Your task to perform on an android device: Open Youtube and go to the subscriptions tab Image 0: 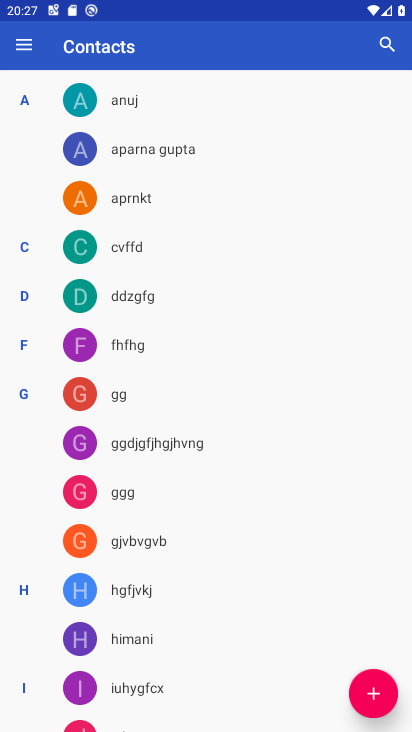
Step 0: press home button
Your task to perform on an android device: Open Youtube and go to the subscriptions tab Image 1: 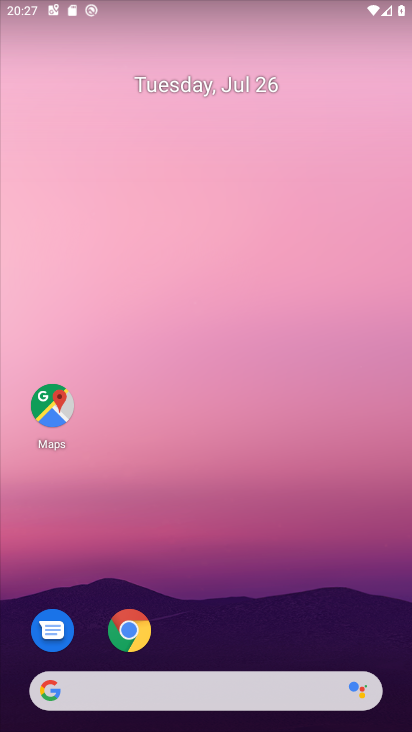
Step 1: drag from (390, 691) to (340, 69)
Your task to perform on an android device: Open Youtube and go to the subscriptions tab Image 2: 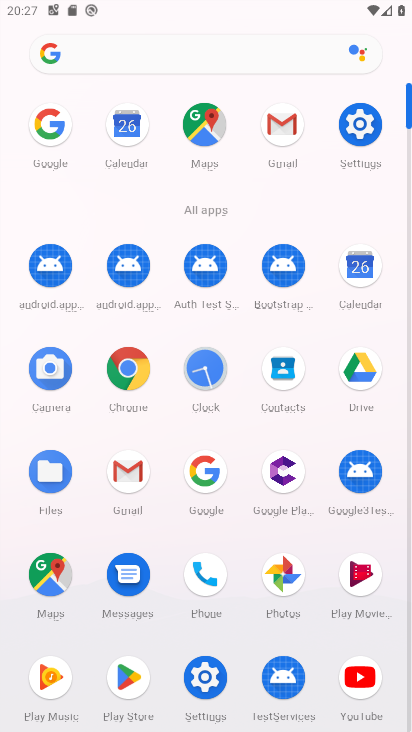
Step 2: click (349, 673)
Your task to perform on an android device: Open Youtube and go to the subscriptions tab Image 3: 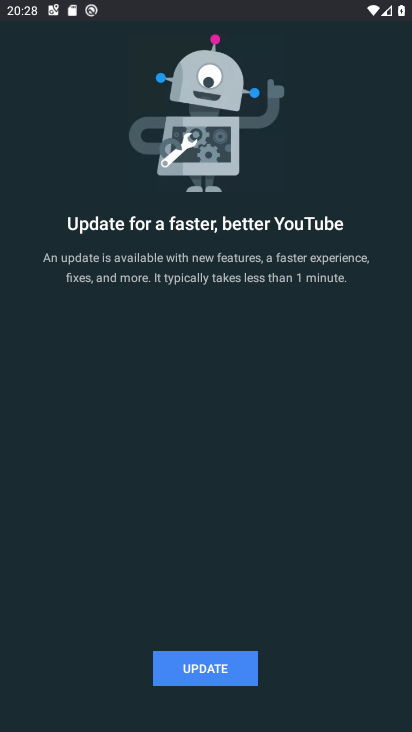
Step 3: press back button
Your task to perform on an android device: Open Youtube and go to the subscriptions tab Image 4: 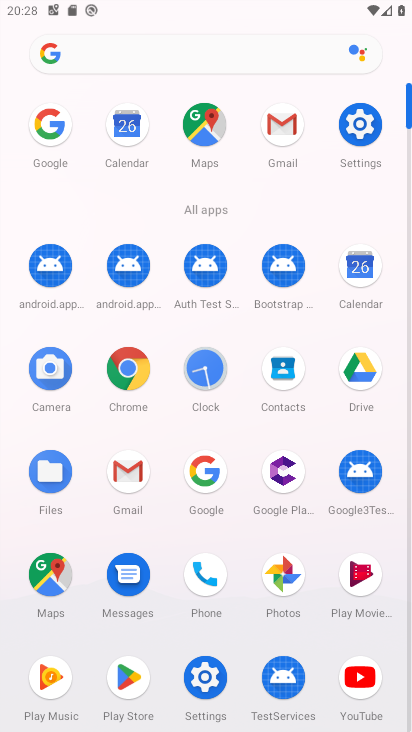
Step 4: click (368, 678)
Your task to perform on an android device: Open Youtube and go to the subscriptions tab Image 5: 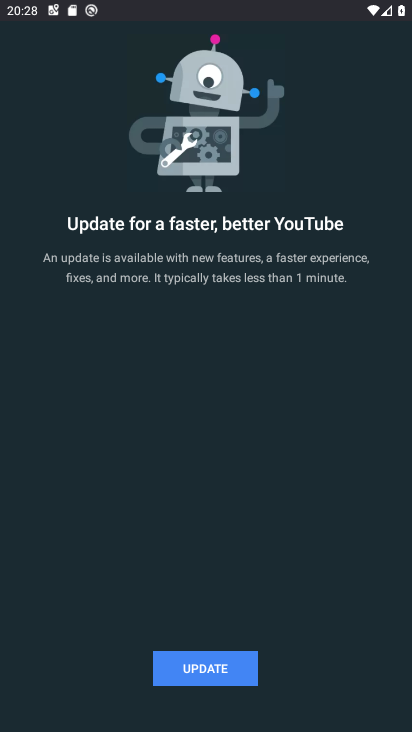
Step 5: click (242, 673)
Your task to perform on an android device: Open Youtube and go to the subscriptions tab Image 6: 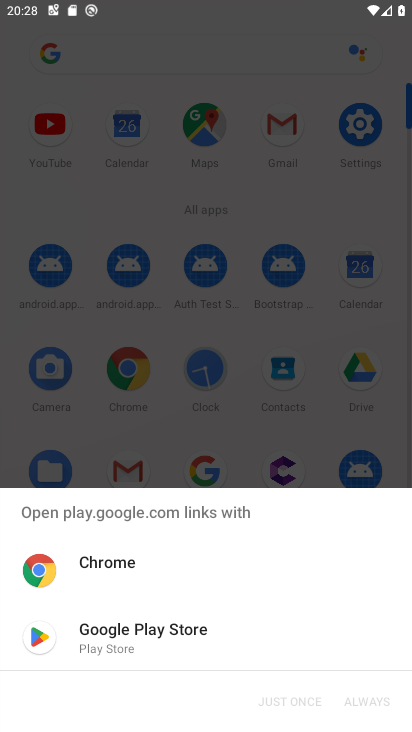
Step 6: click (119, 639)
Your task to perform on an android device: Open Youtube and go to the subscriptions tab Image 7: 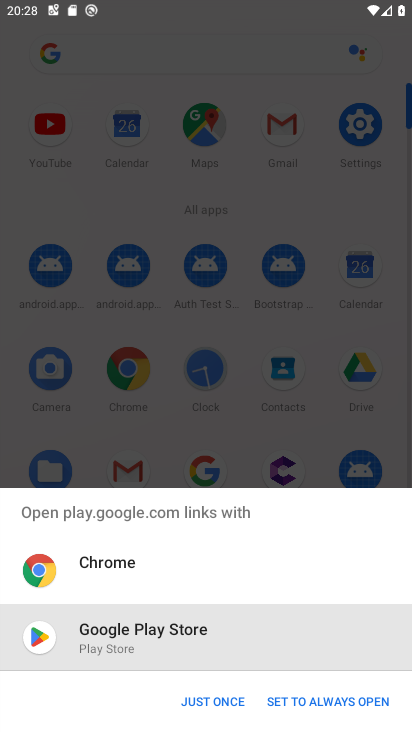
Step 7: click (197, 704)
Your task to perform on an android device: Open Youtube and go to the subscriptions tab Image 8: 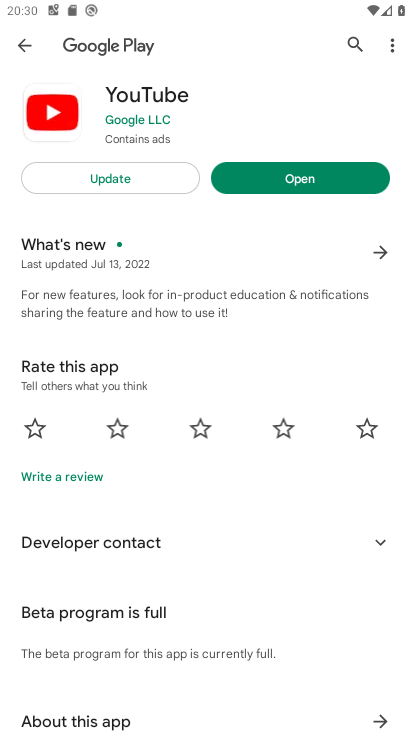
Step 8: click (146, 178)
Your task to perform on an android device: Open Youtube and go to the subscriptions tab Image 9: 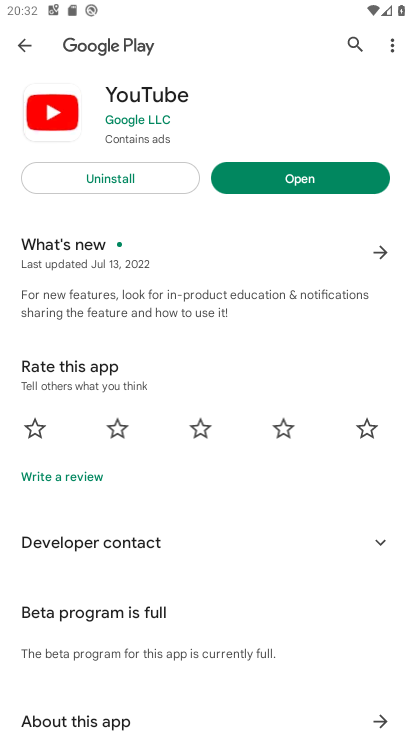
Step 9: click (309, 175)
Your task to perform on an android device: Open Youtube and go to the subscriptions tab Image 10: 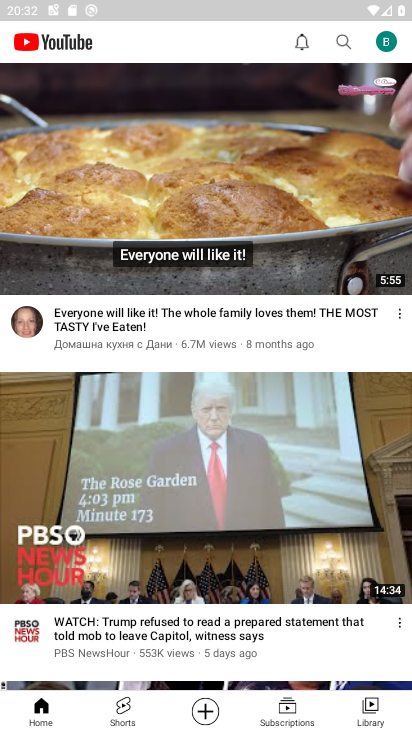
Step 10: click (275, 715)
Your task to perform on an android device: Open Youtube and go to the subscriptions tab Image 11: 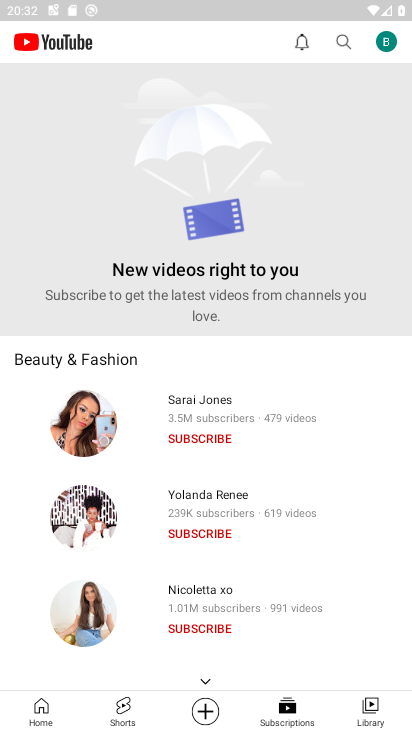
Step 11: task complete